Your task to perform on an android device: Show the shopping cart on target. Search for razer blade on target, select the first entry, add it to the cart, then select checkout. Image 0: 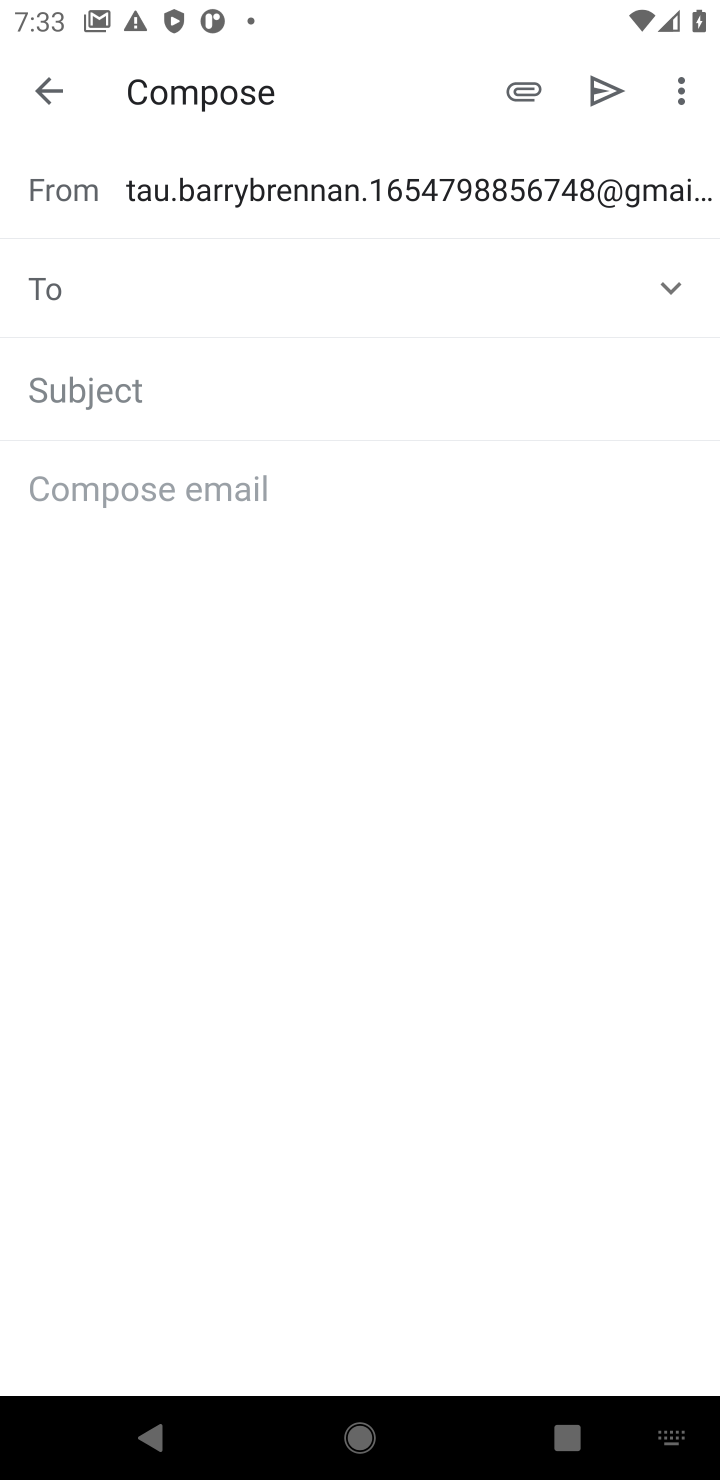
Step 0: click (673, 822)
Your task to perform on an android device: Show the shopping cart on target. Search for razer blade on target, select the first entry, add it to the cart, then select checkout. Image 1: 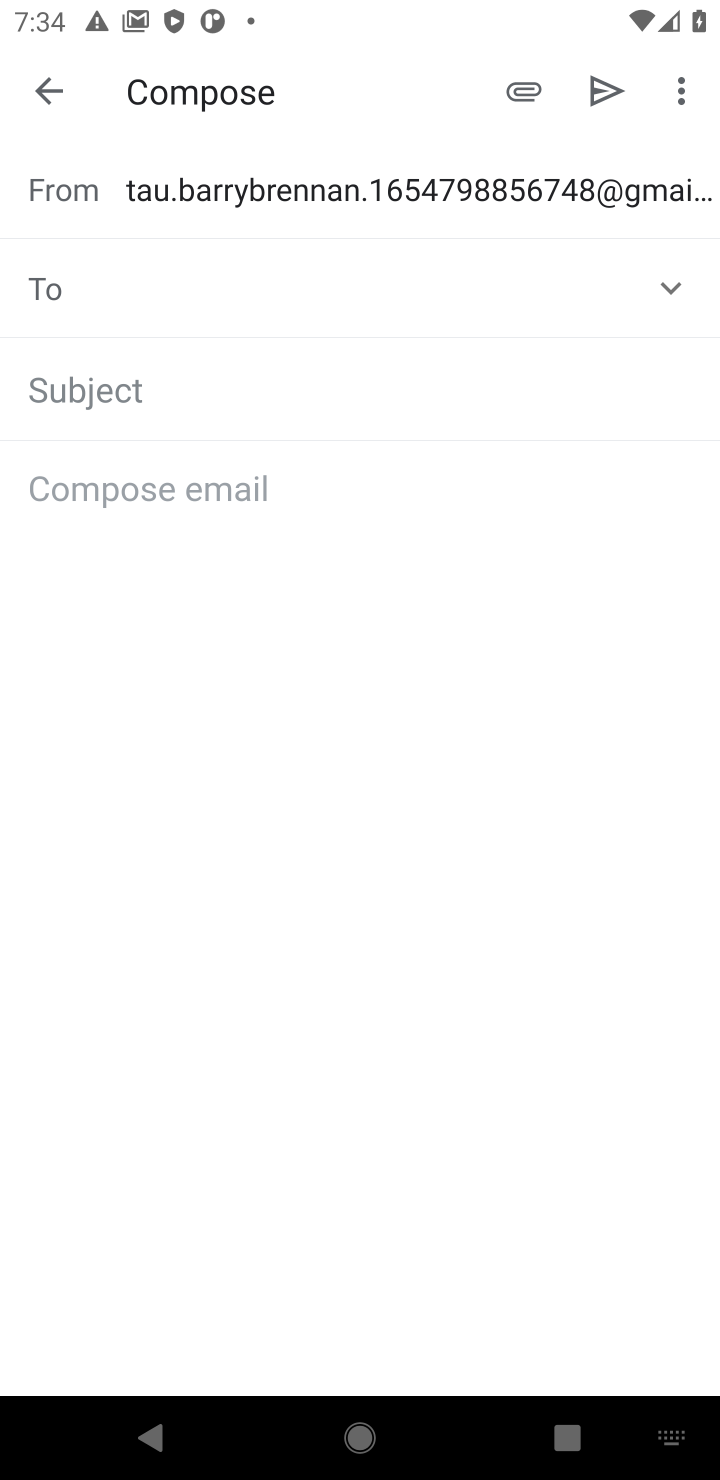
Step 1: press home button
Your task to perform on an android device: Show the shopping cart on target. Search for razer blade on target, select the first entry, add it to the cart, then select checkout. Image 2: 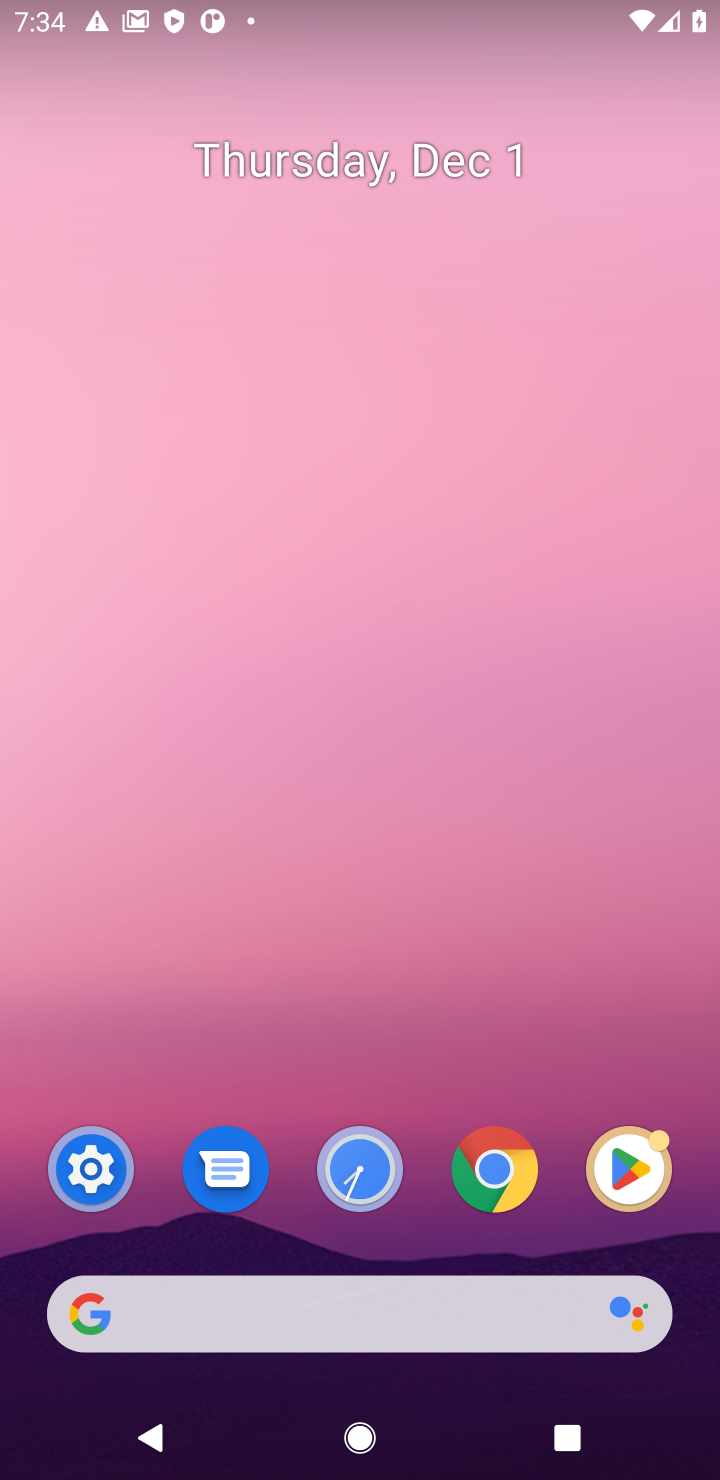
Step 2: click (497, 1146)
Your task to perform on an android device: Show the shopping cart on target. Search for razer blade on target, select the first entry, add it to the cart, then select checkout. Image 3: 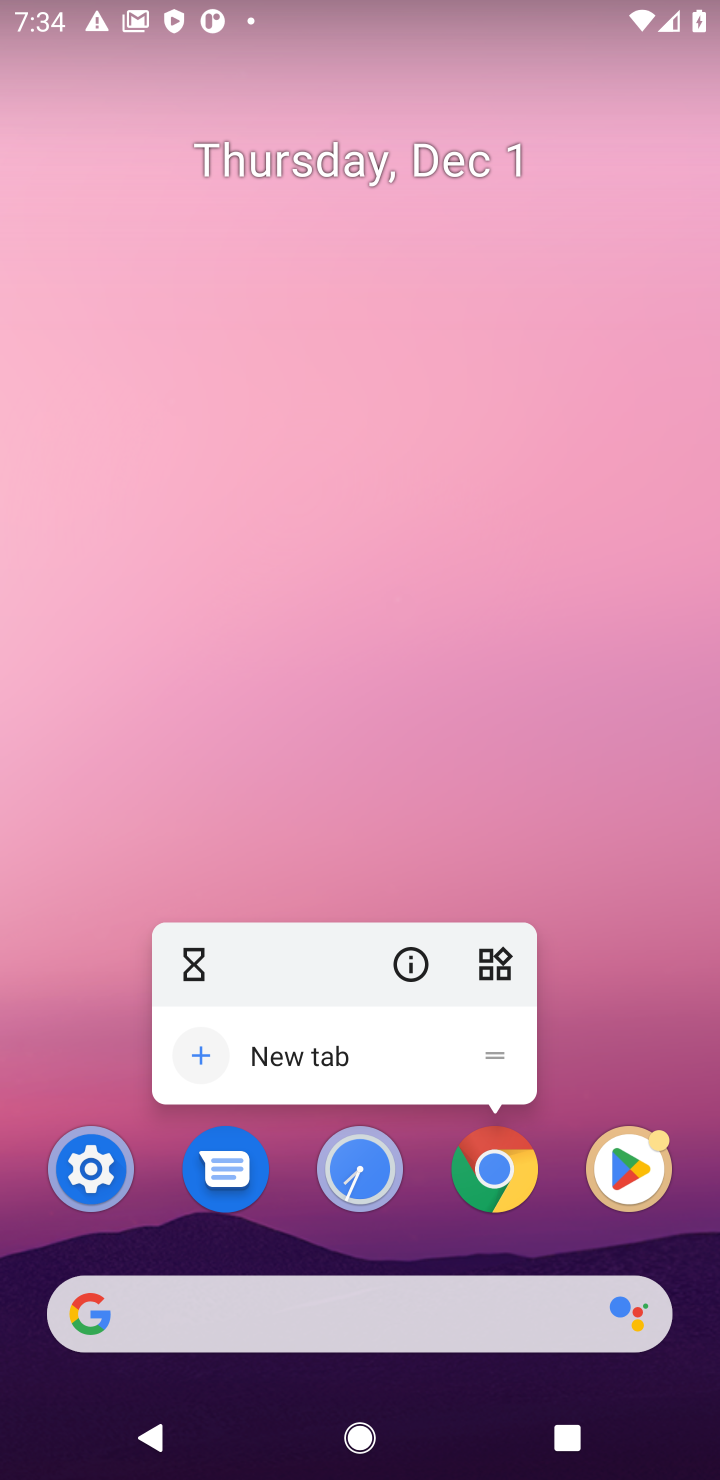
Step 3: click (492, 1188)
Your task to perform on an android device: Show the shopping cart on target. Search for razer blade on target, select the first entry, add it to the cart, then select checkout. Image 4: 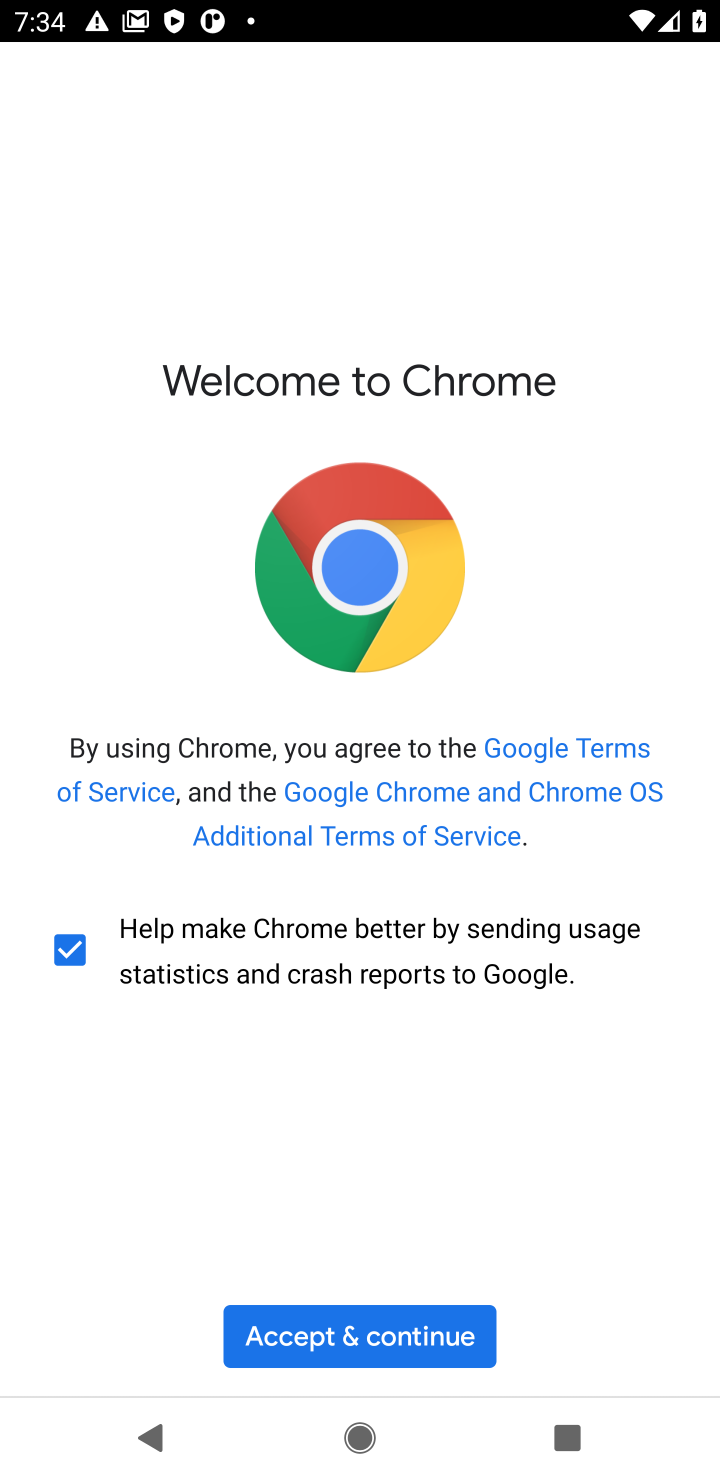
Step 4: click (381, 1328)
Your task to perform on an android device: Show the shopping cart on target. Search for razer blade on target, select the first entry, add it to the cart, then select checkout. Image 5: 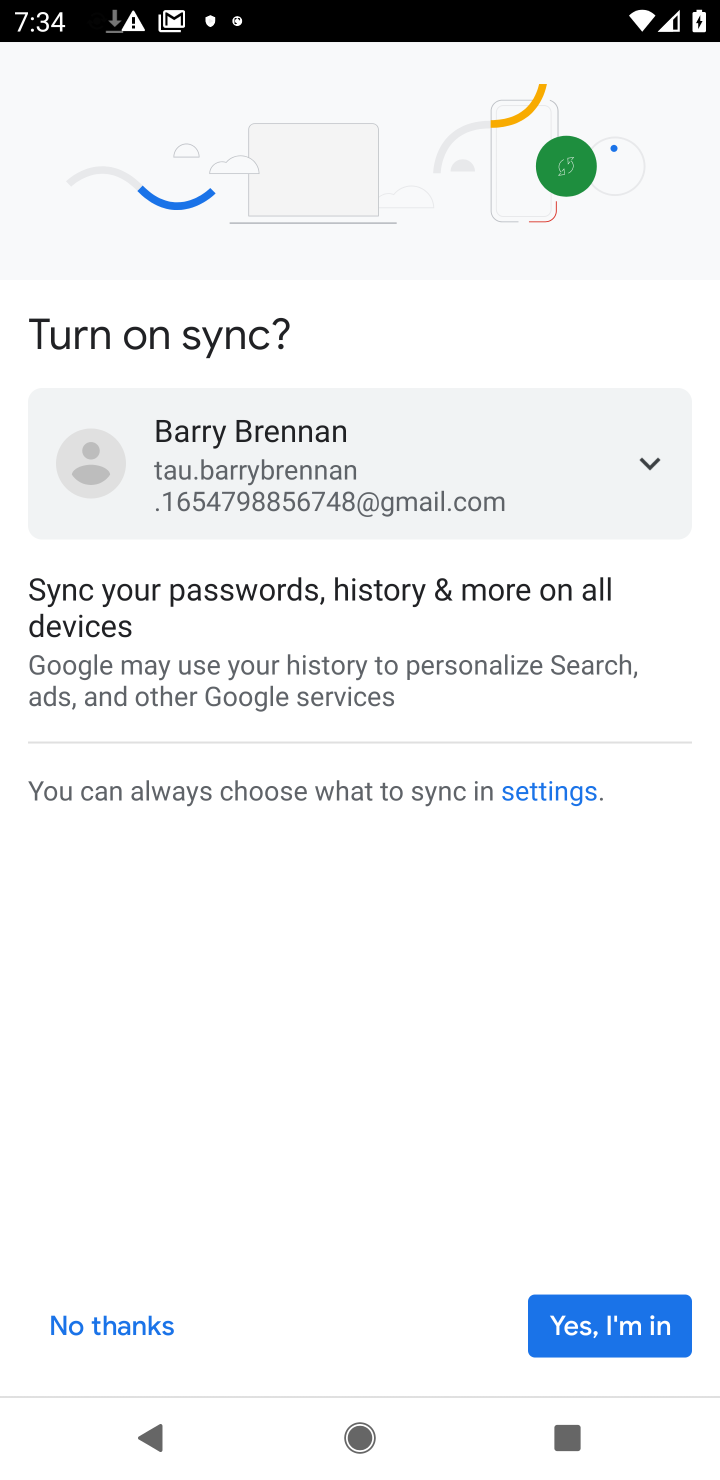
Step 5: click (618, 1338)
Your task to perform on an android device: Show the shopping cart on target. Search for razer blade on target, select the first entry, add it to the cart, then select checkout. Image 6: 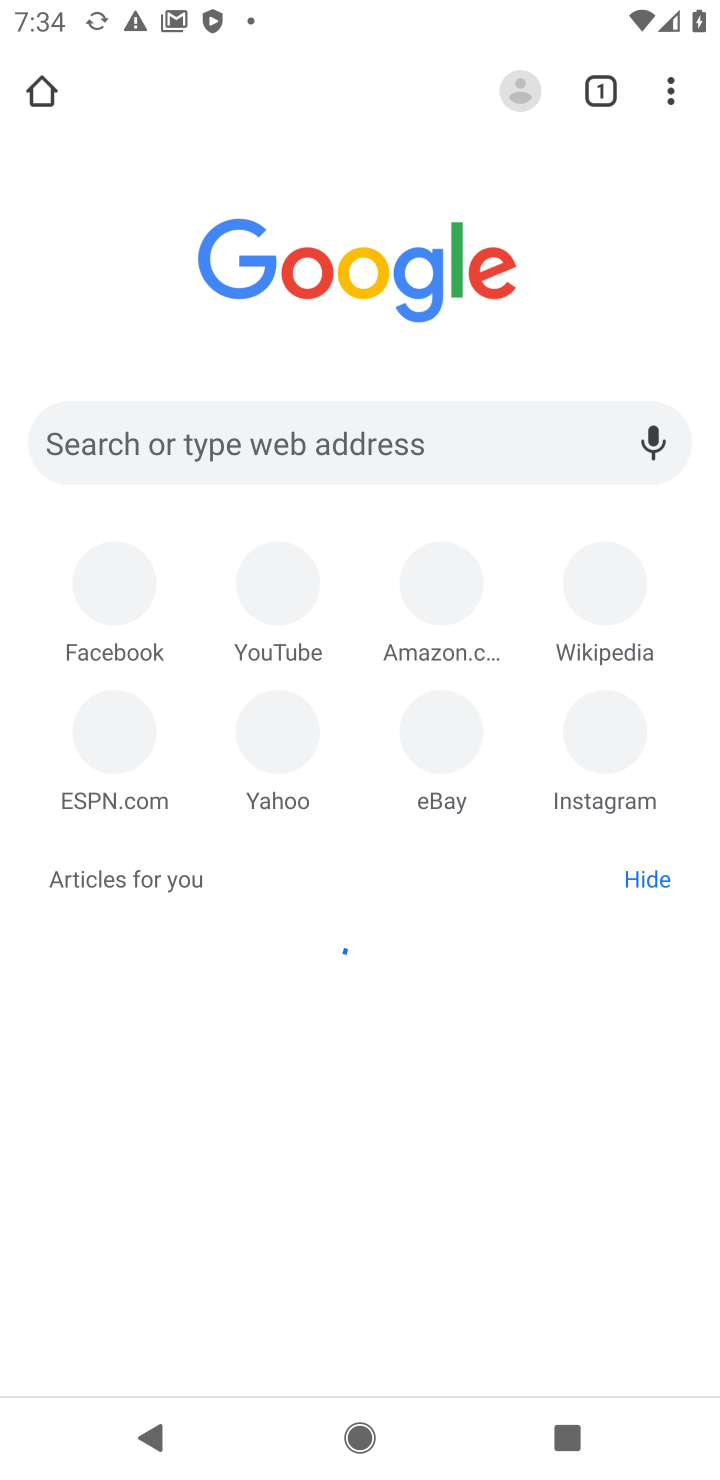
Step 6: click (514, 454)
Your task to perform on an android device: Show the shopping cart on target. Search for razer blade on target, select the first entry, add it to the cart, then select checkout. Image 7: 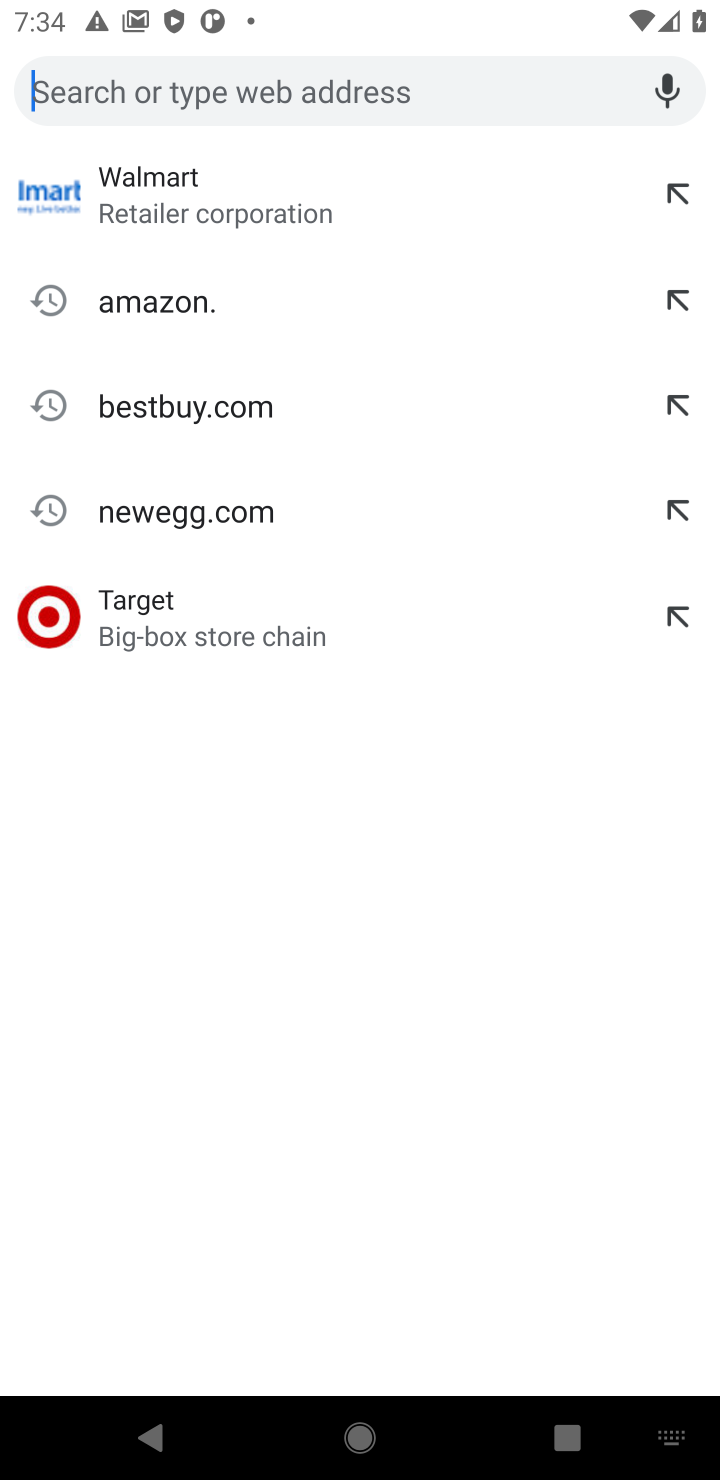
Step 7: click (151, 607)
Your task to perform on an android device: Show the shopping cart on target. Search for razer blade on target, select the first entry, add it to the cart, then select checkout. Image 8: 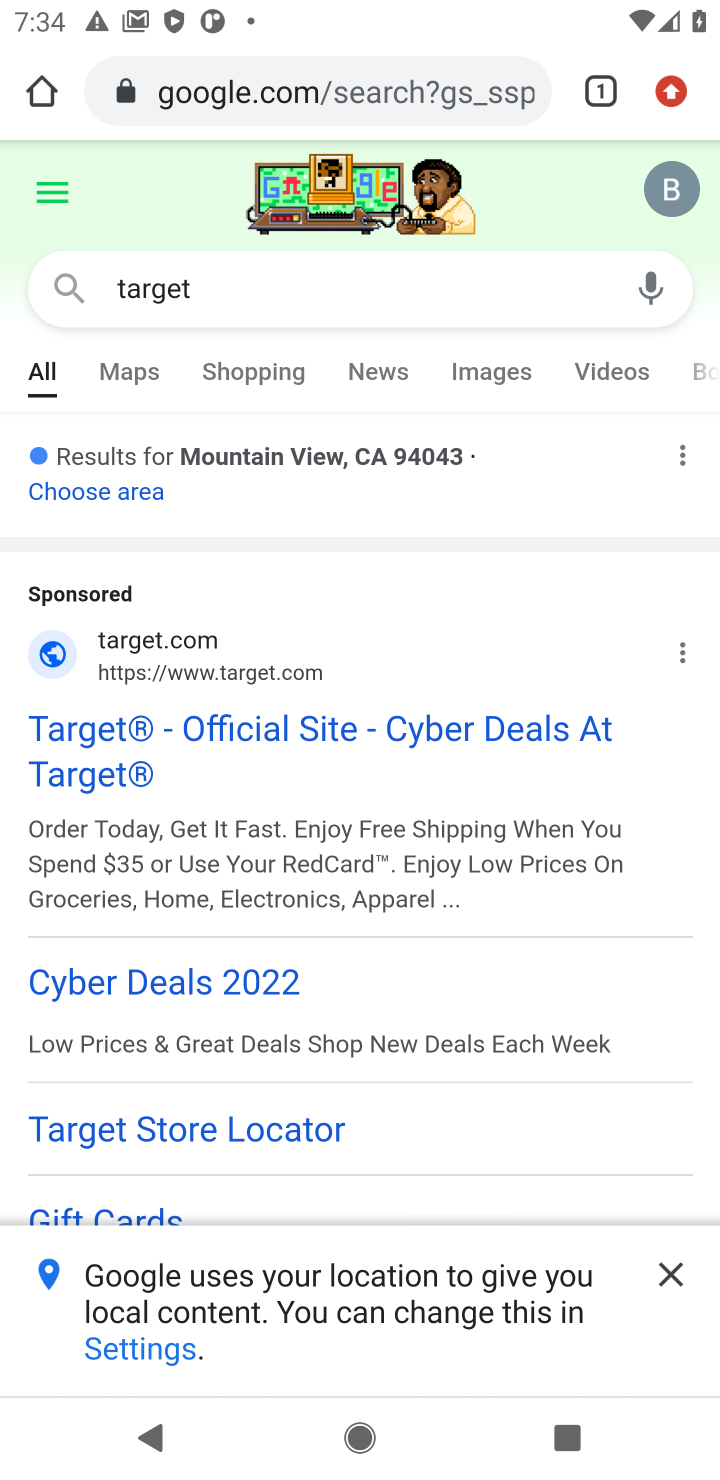
Step 8: click (166, 639)
Your task to perform on an android device: Show the shopping cart on target. Search for razer blade on target, select the first entry, add it to the cart, then select checkout. Image 9: 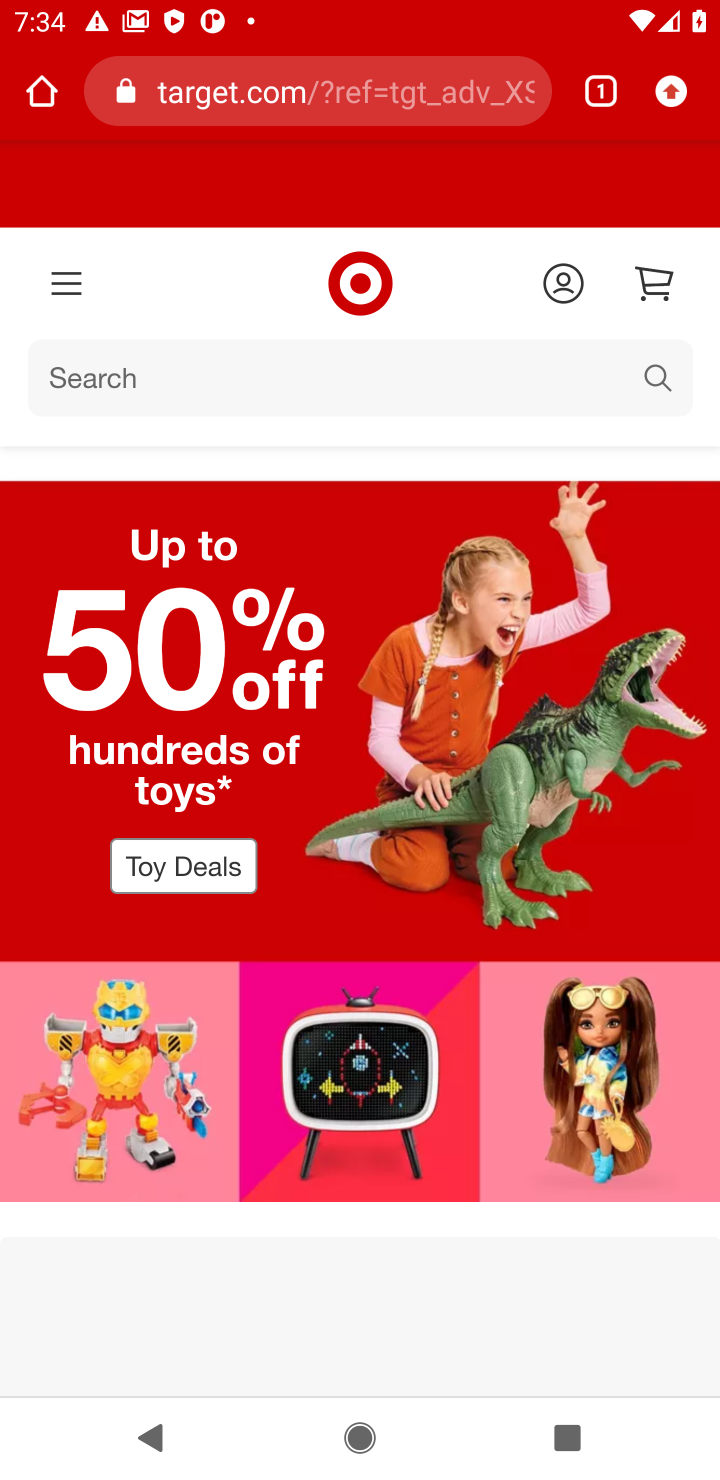
Step 9: click (662, 282)
Your task to perform on an android device: Show the shopping cart on target. Search for razer blade on target, select the first entry, add it to the cart, then select checkout. Image 10: 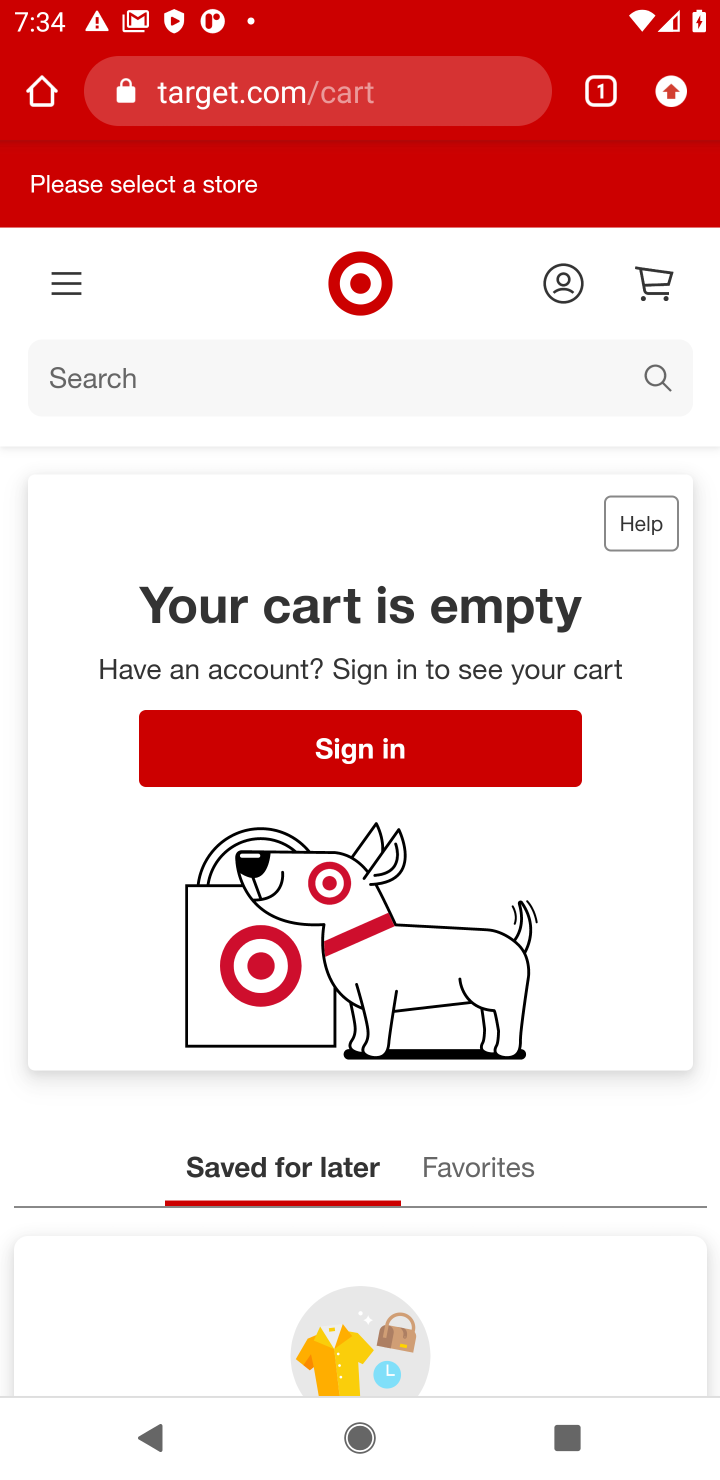
Step 10: click (655, 378)
Your task to perform on an android device: Show the shopping cart on target. Search for razer blade on target, select the first entry, add it to the cart, then select checkout. Image 11: 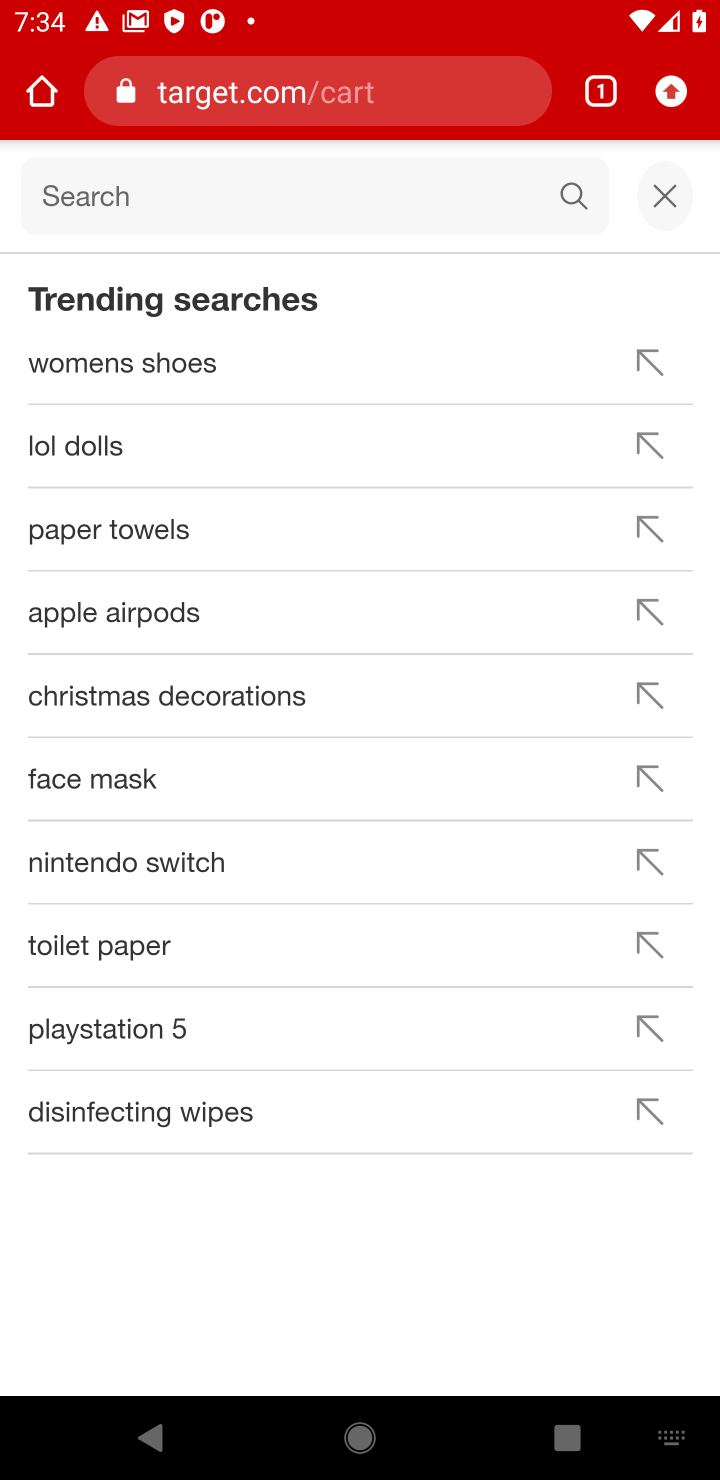
Step 11: type "razer blade"
Your task to perform on an android device: Show the shopping cart on target. Search for razer blade on target, select the first entry, add it to the cart, then select checkout. Image 12: 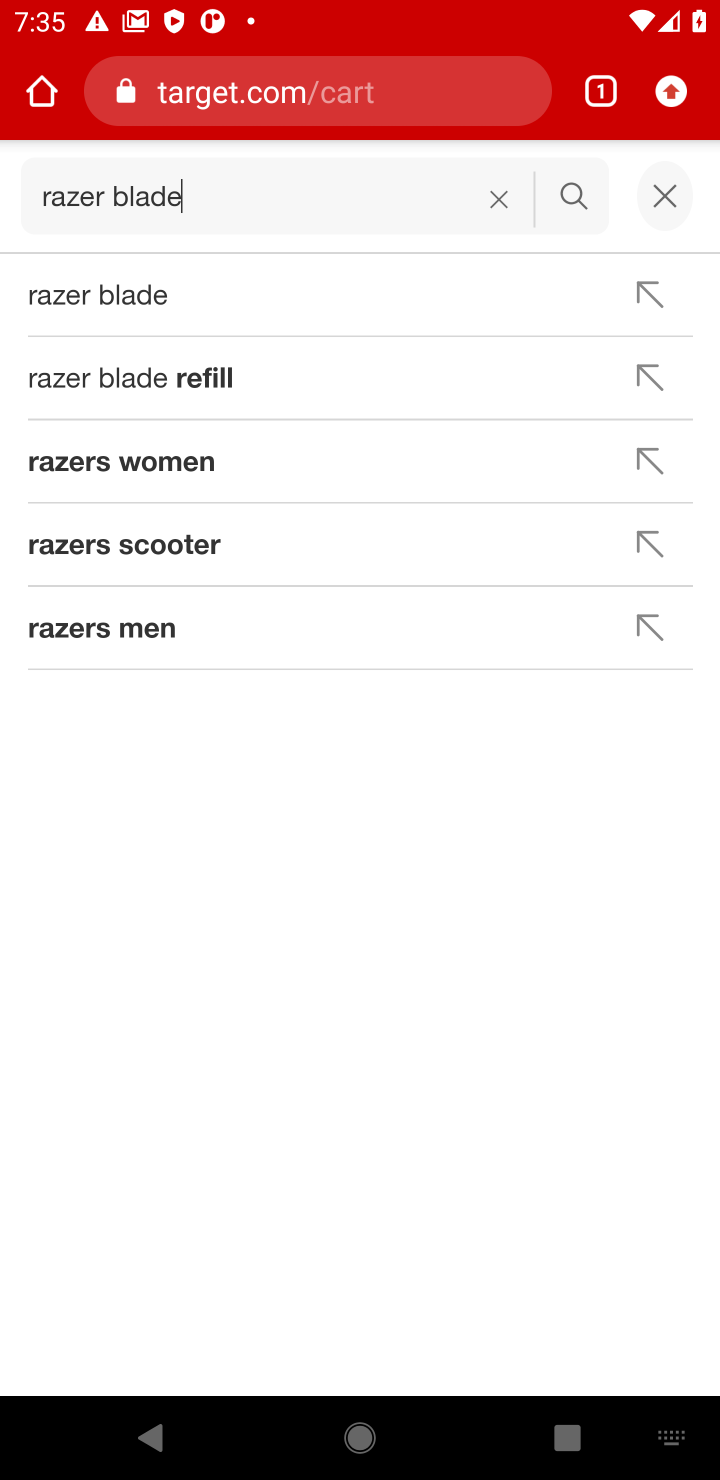
Step 12: press enter
Your task to perform on an android device: Show the shopping cart on target. Search for razer blade on target, select the first entry, add it to the cart, then select checkout. Image 13: 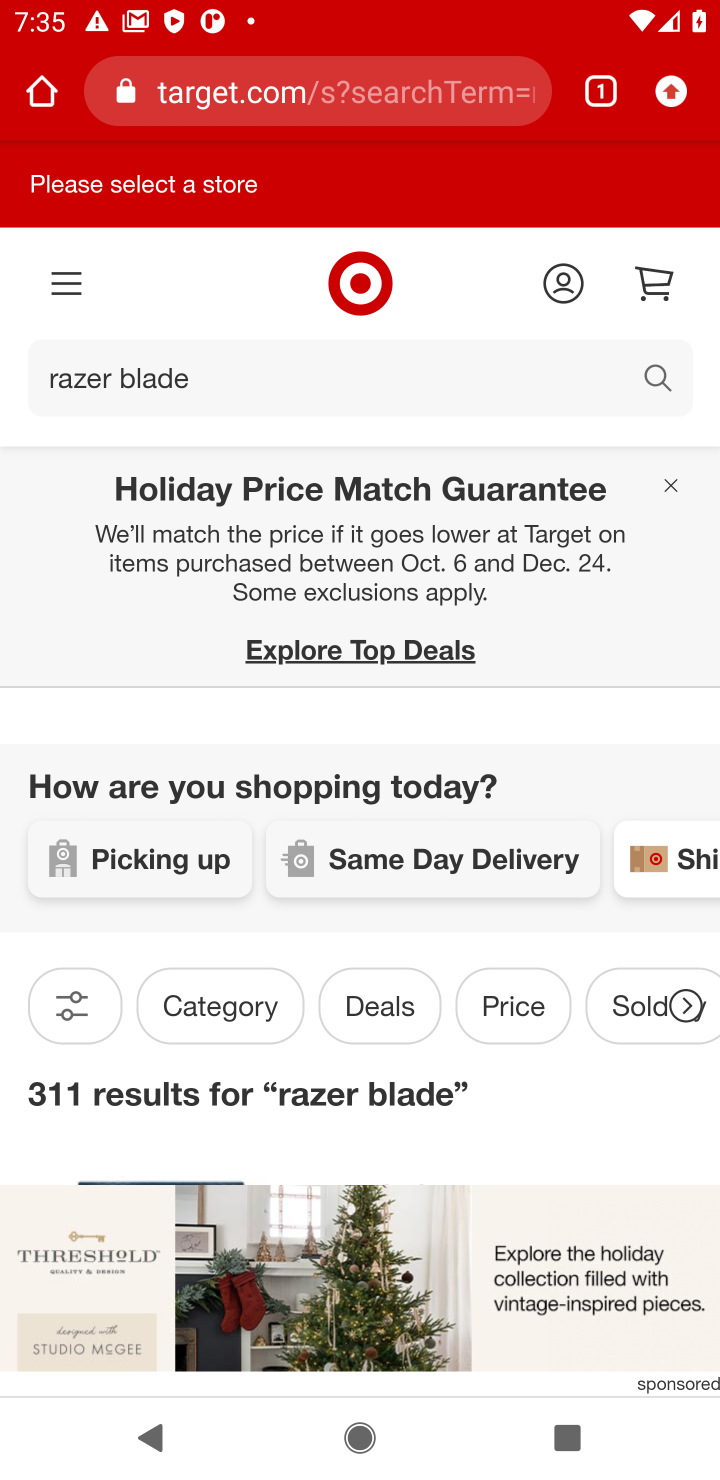
Step 13: task complete